Your task to perform on an android device: install app "TextNow: Call + Text Unlimited" Image 0: 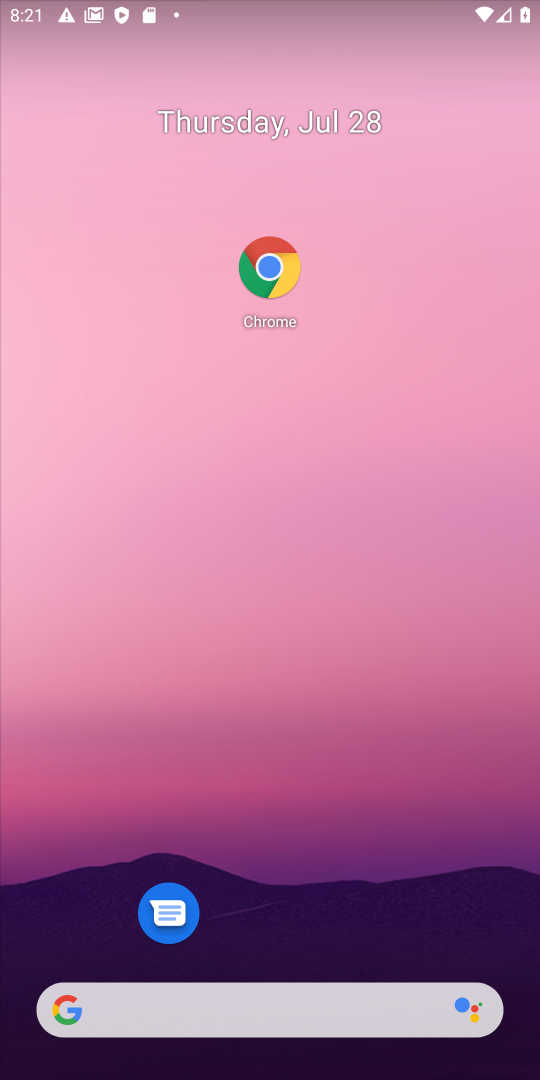
Step 0: drag from (350, 940) to (316, 286)
Your task to perform on an android device: install app "TextNow: Call + Text Unlimited" Image 1: 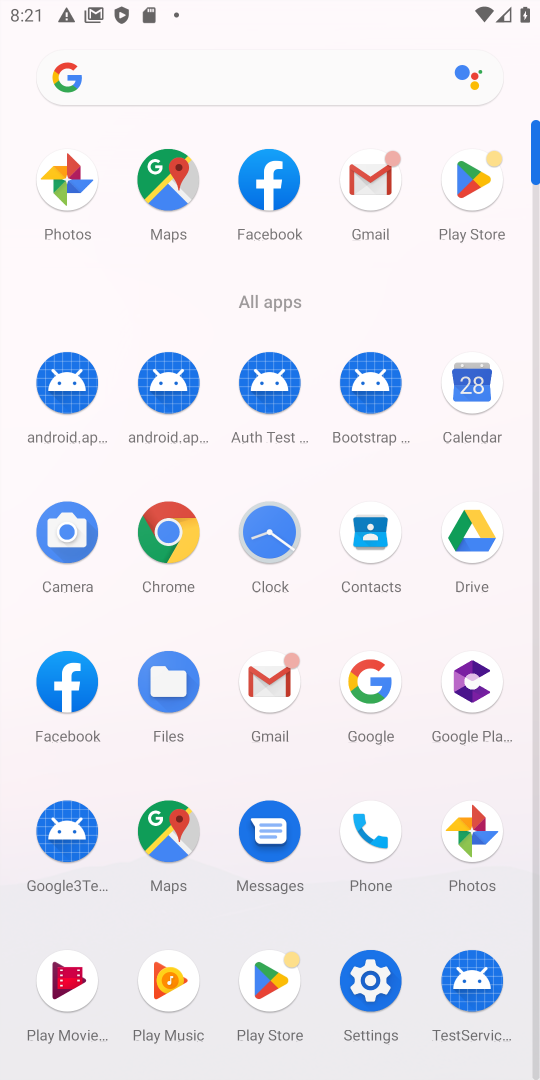
Step 1: drag from (481, 199) to (389, 952)
Your task to perform on an android device: install app "TextNow: Call + Text Unlimited" Image 2: 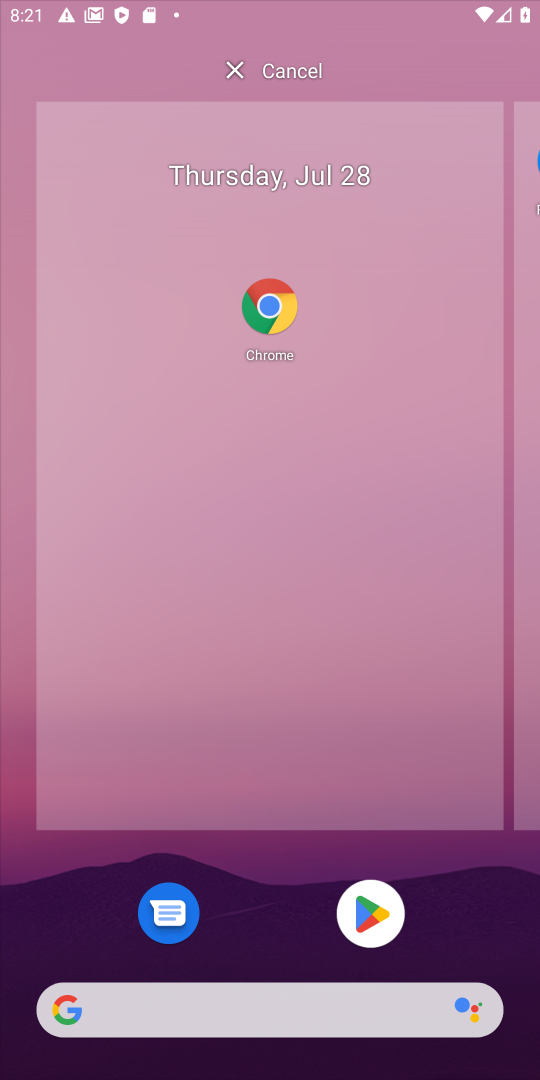
Step 2: click (388, 930)
Your task to perform on an android device: install app "TextNow: Call + Text Unlimited" Image 3: 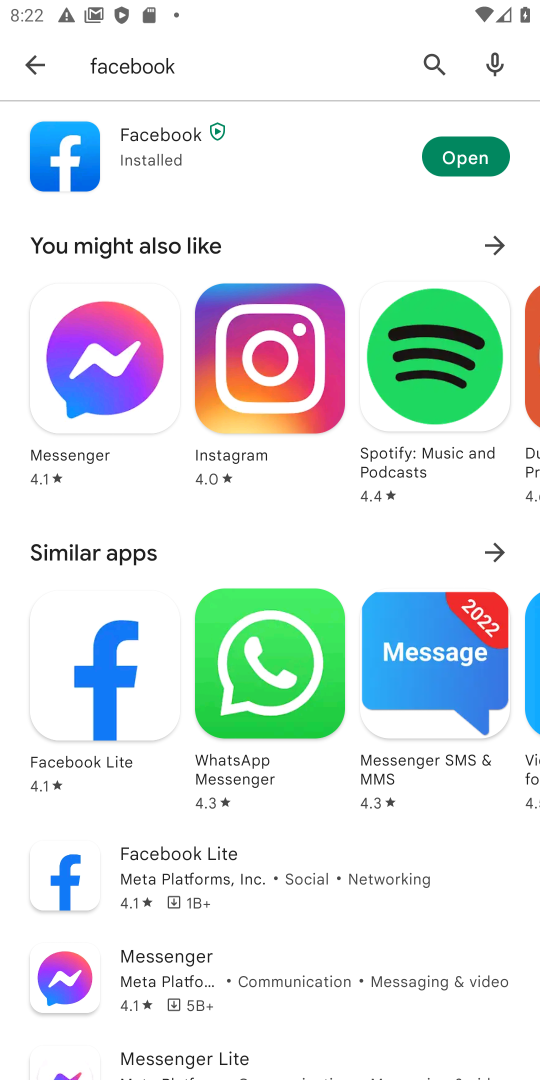
Step 3: click (426, 57)
Your task to perform on an android device: install app "TextNow: Call + Text Unlimited" Image 4: 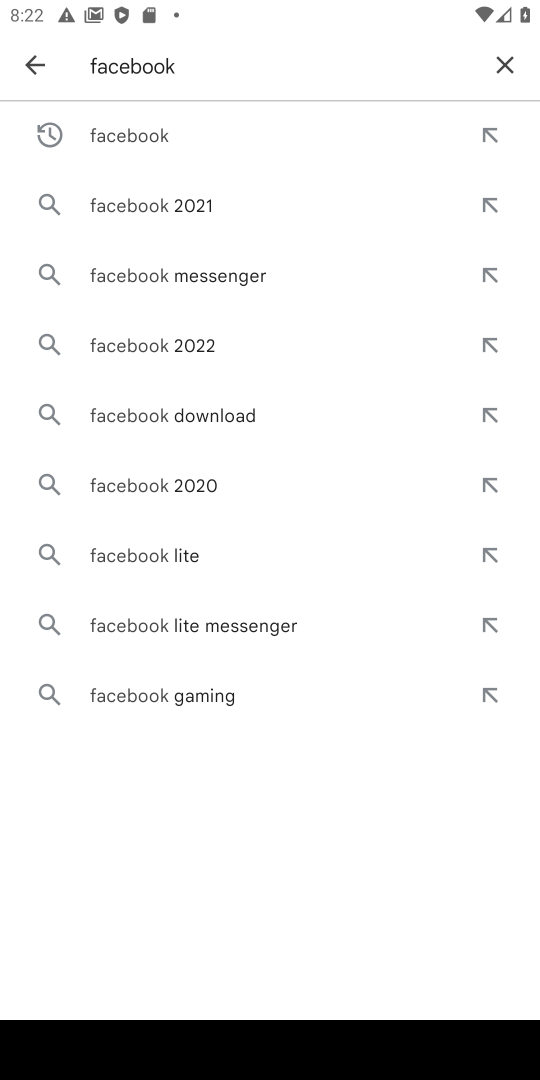
Step 4: type "textnow"
Your task to perform on an android device: install app "TextNow: Call + Text Unlimited" Image 5: 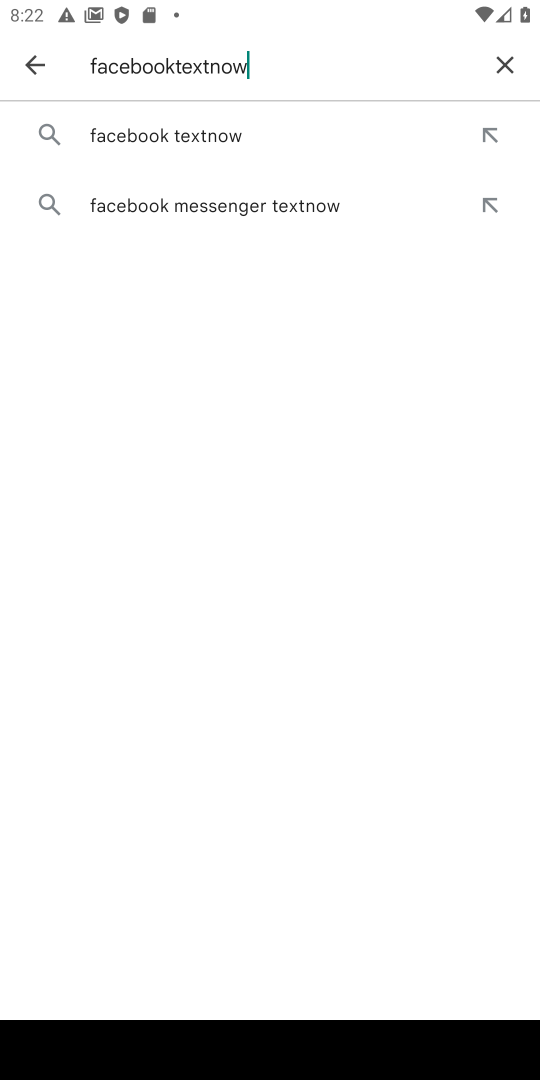
Step 5: click (169, 67)
Your task to perform on an android device: install app "TextNow: Call + Text Unlimited" Image 6: 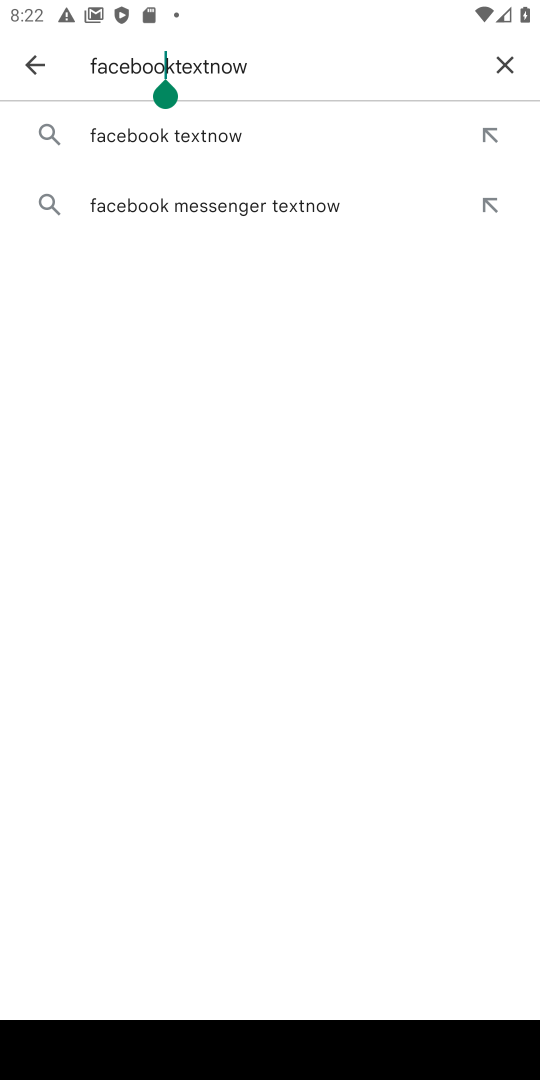
Step 6: click (176, 73)
Your task to perform on an android device: install app "TextNow: Call + Text Unlimited" Image 7: 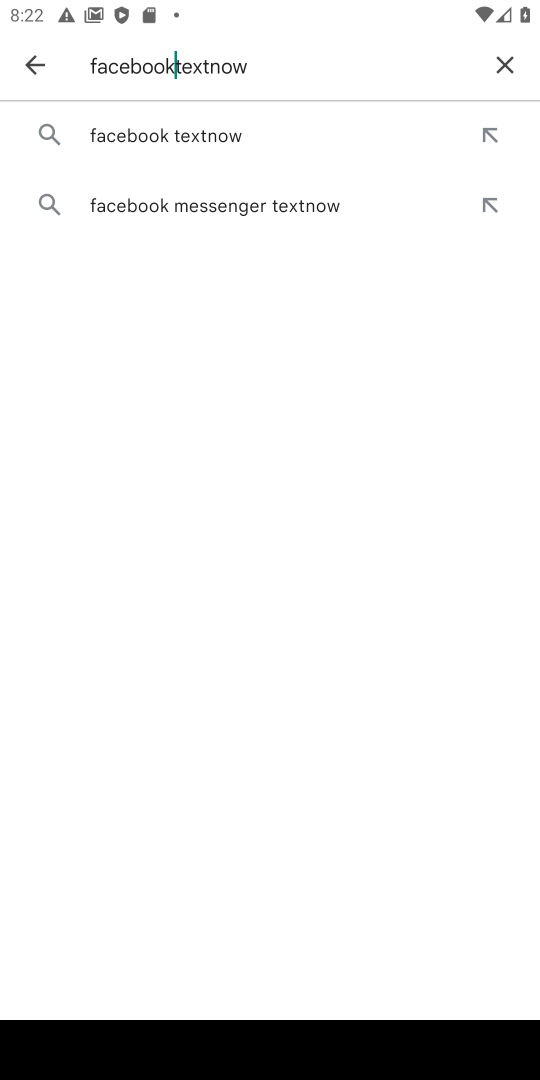
Step 7: click (505, 67)
Your task to perform on an android device: install app "TextNow: Call + Text Unlimited" Image 8: 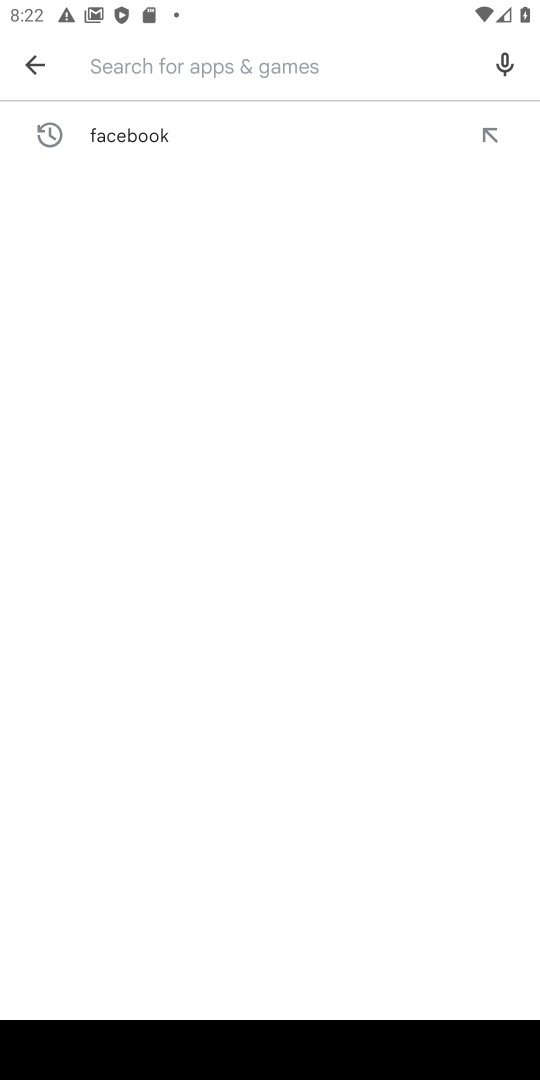
Step 8: type "texnow"
Your task to perform on an android device: install app "TextNow: Call + Text Unlimited" Image 9: 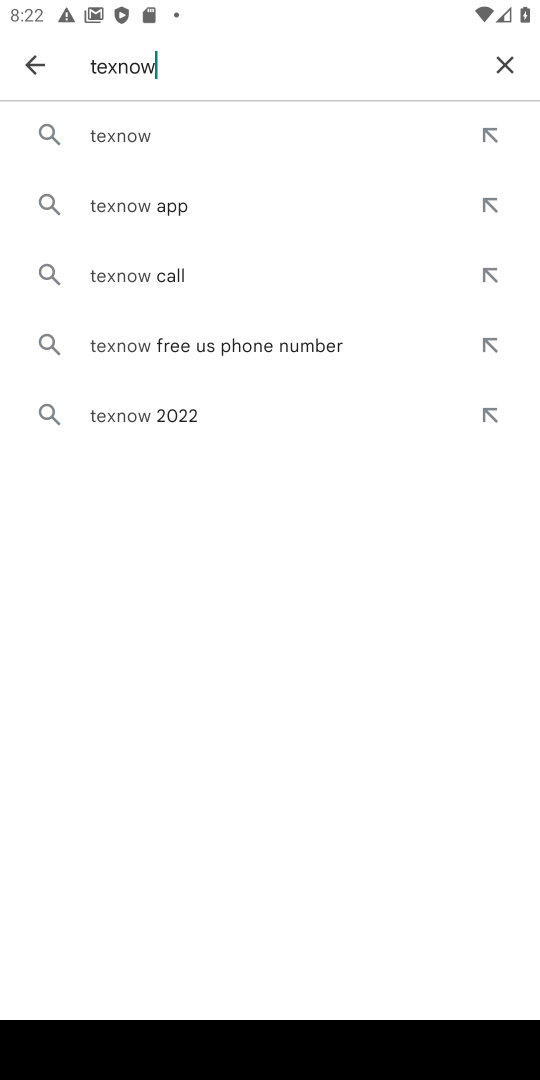
Step 9: click (234, 136)
Your task to perform on an android device: install app "TextNow: Call + Text Unlimited" Image 10: 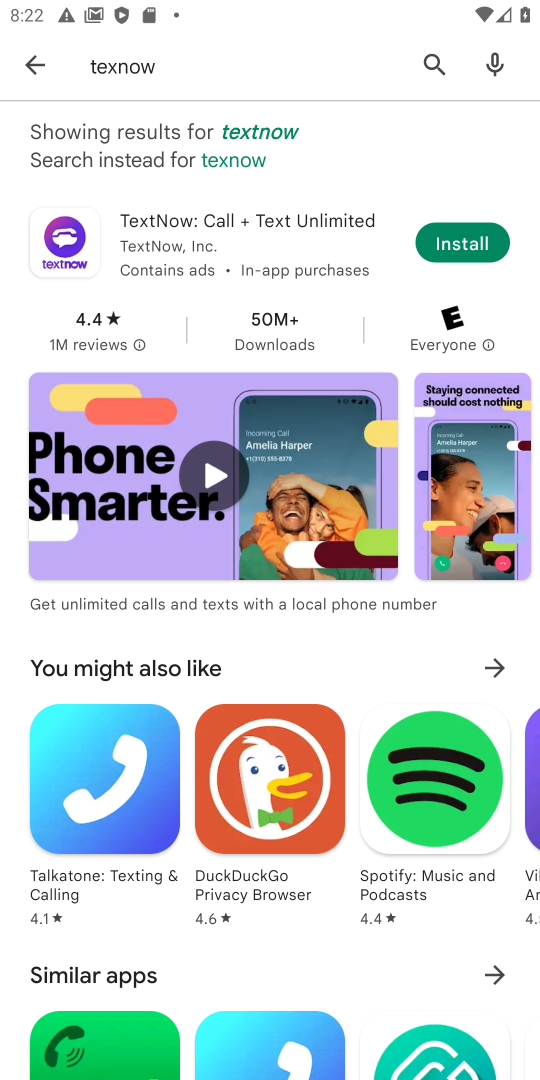
Step 10: click (464, 243)
Your task to perform on an android device: install app "TextNow: Call + Text Unlimited" Image 11: 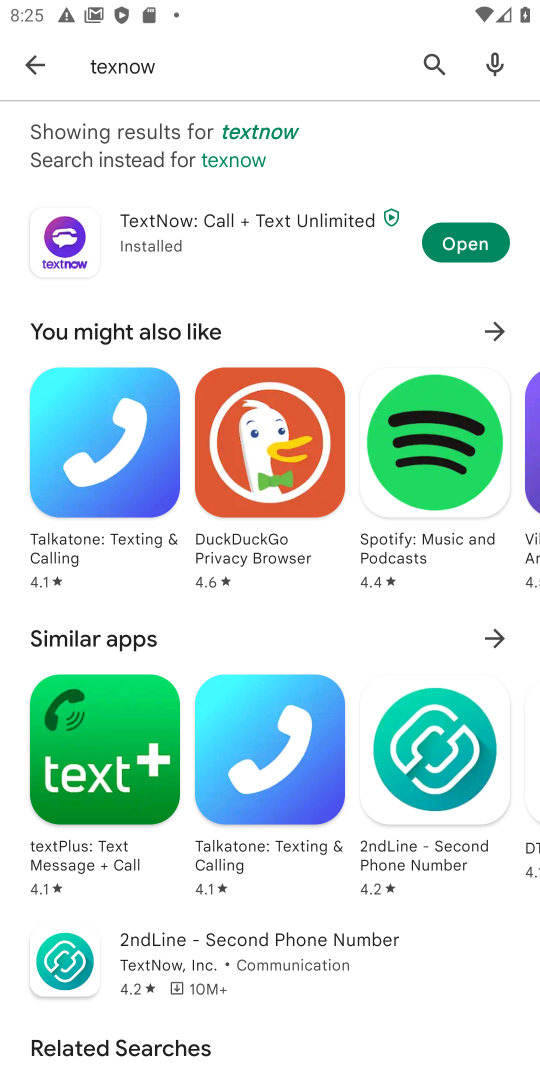
Step 11: task complete